Your task to perform on an android device: Open Google Chrome and click the shortcut for Amazon.com Image 0: 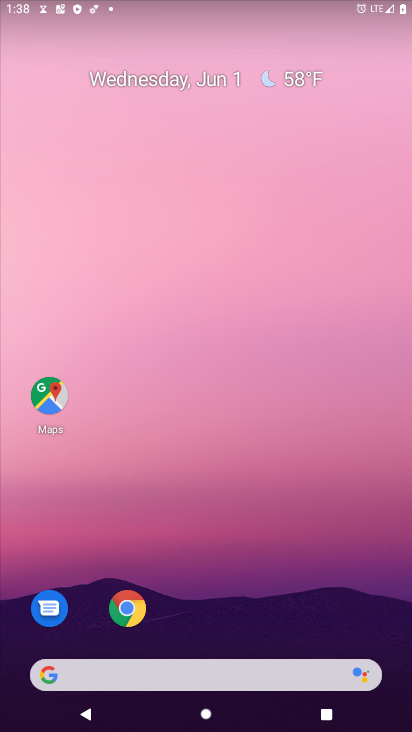
Step 0: click (130, 597)
Your task to perform on an android device: Open Google Chrome and click the shortcut for Amazon.com Image 1: 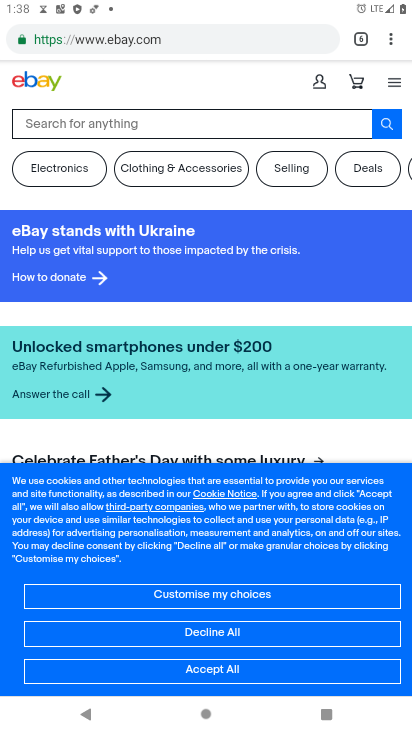
Step 1: click (369, 45)
Your task to perform on an android device: Open Google Chrome and click the shortcut for Amazon.com Image 2: 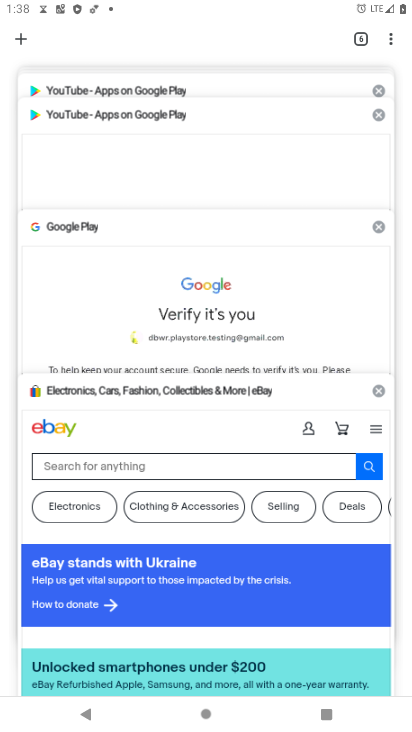
Step 2: drag from (187, 136) to (178, 507)
Your task to perform on an android device: Open Google Chrome and click the shortcut for Amazon.com Image 3: 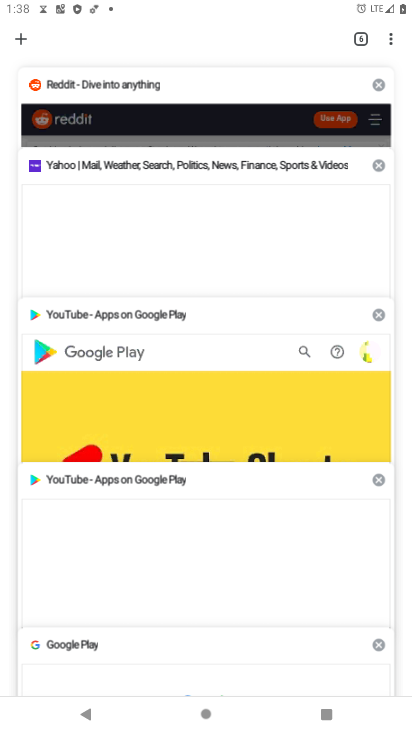
Step 3: drag from (152, 176) to (194, 634)
Your task to perform on an android device: Open Google Chrome and click the shortcut for Amazon.com Image 4: 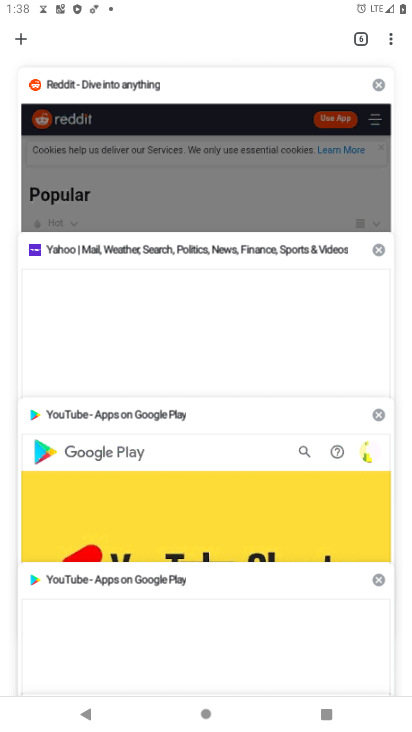
Step 4: drag from (159, 513) to (177, 15)
Your task to perform on an android device: Open Google Chrome and click the shortcut for Amazon.com Image 5: 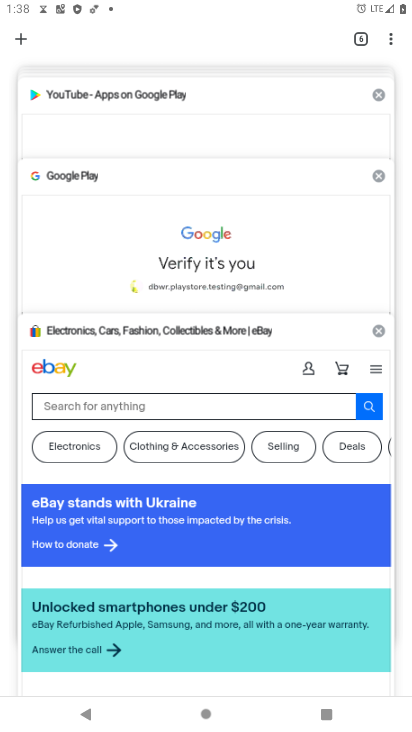
Step 5: drag from (161, 525) to (228, 11)
Your task to perform on an android device: Open Google Chrome and click the shortcut for Amazon.com Image 6: 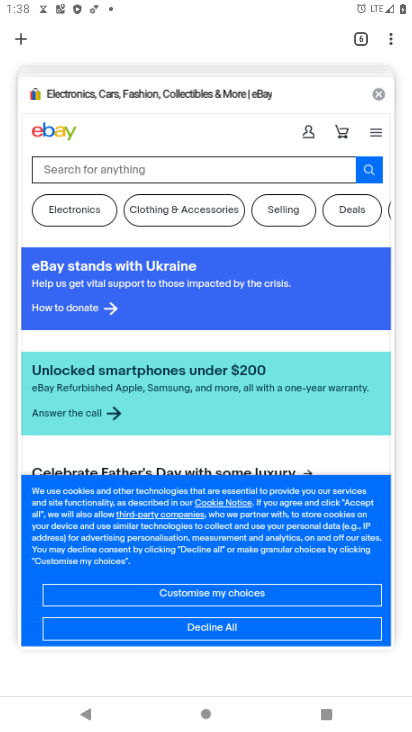
Step 6: drag from (144, 452) to (160, 137)
Your task to perform on an android device: Open Google Chrome and click the shortcut for Amazon.com Image 7: 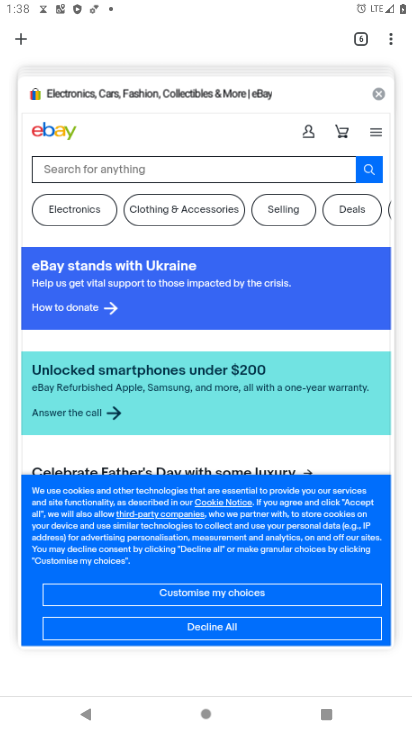
Step 7: click (20, 21)
Your task to perform on an android device: Open Google Chrome and click the shortcut for Amazon.com Image 8: 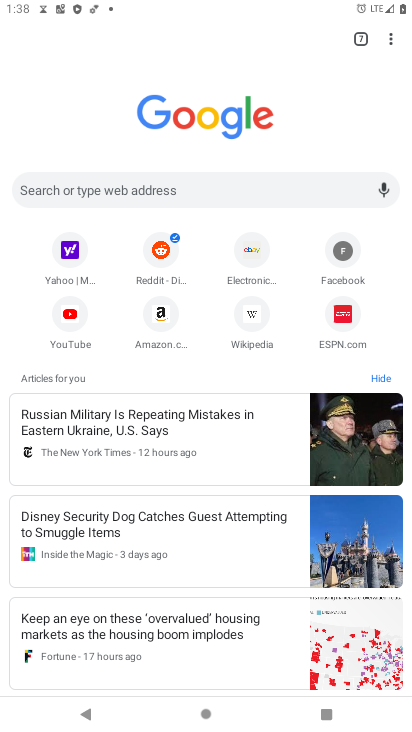
Step 8: click (150, 319)
Your task to perform on an android device: Open Google Chrome and click the shortcut for Amazon.com Image 9: 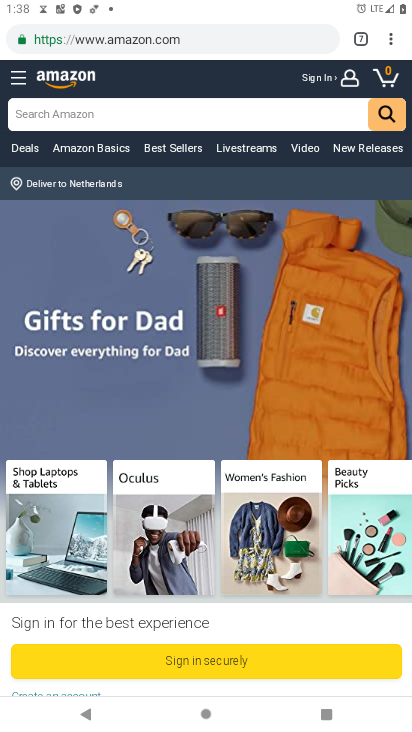
Step 9: task complete